Your task to perform on an android device: open app "Calculator" (install if not already installed) Image 0: 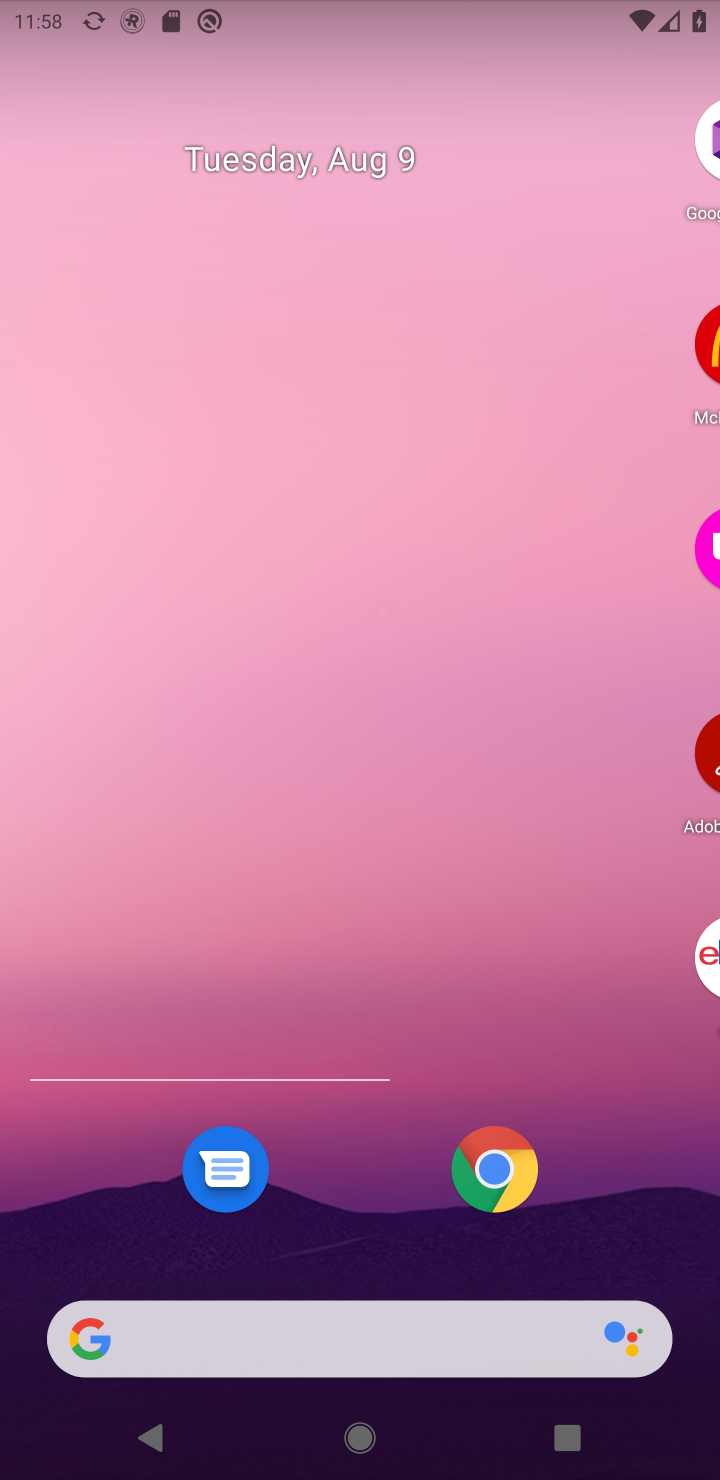
Step 0: press home button
Your task to perform on an android device: open app "Calculator" (install if not already installed) Image 1: 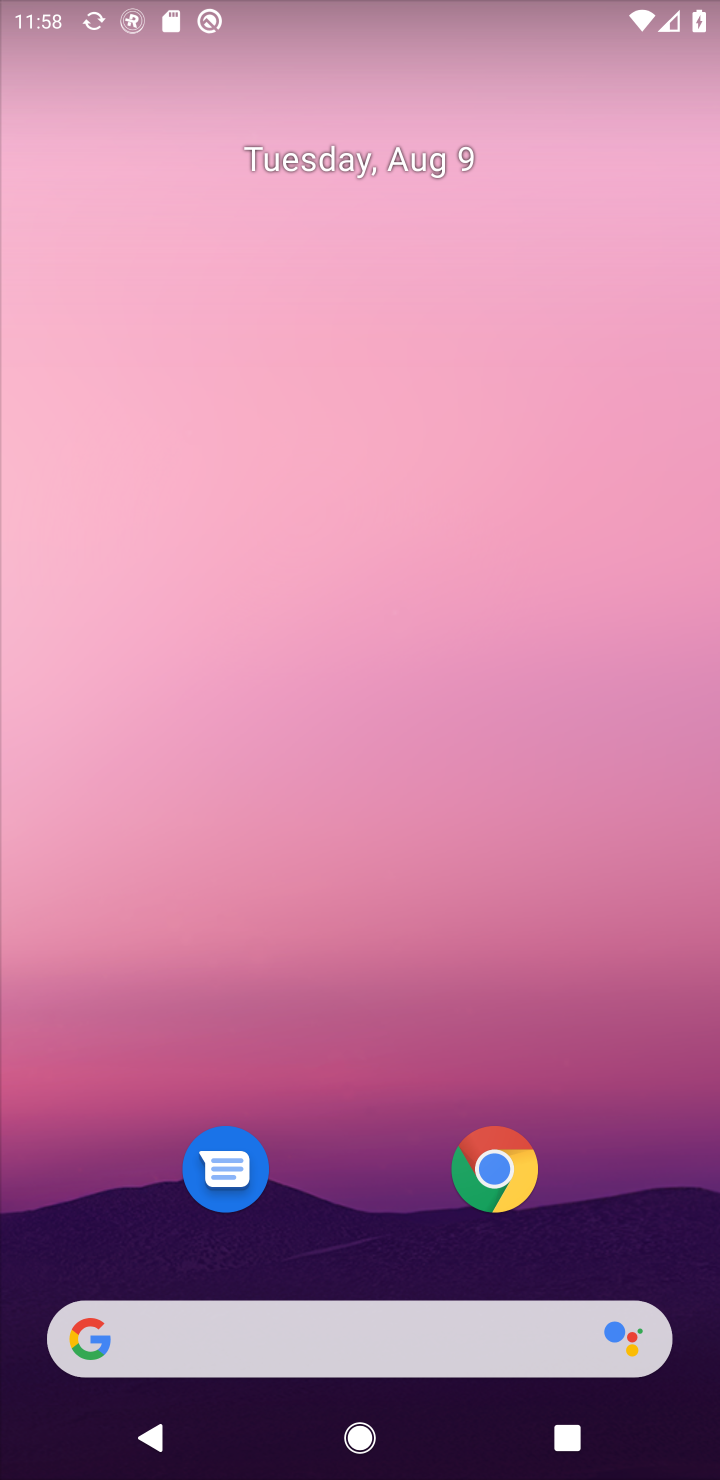
Step 1: drag from (632, 1224) to (636, 80)
Your task to perform on an android device: open app "Calculator" (install if not already installed) Image 2: 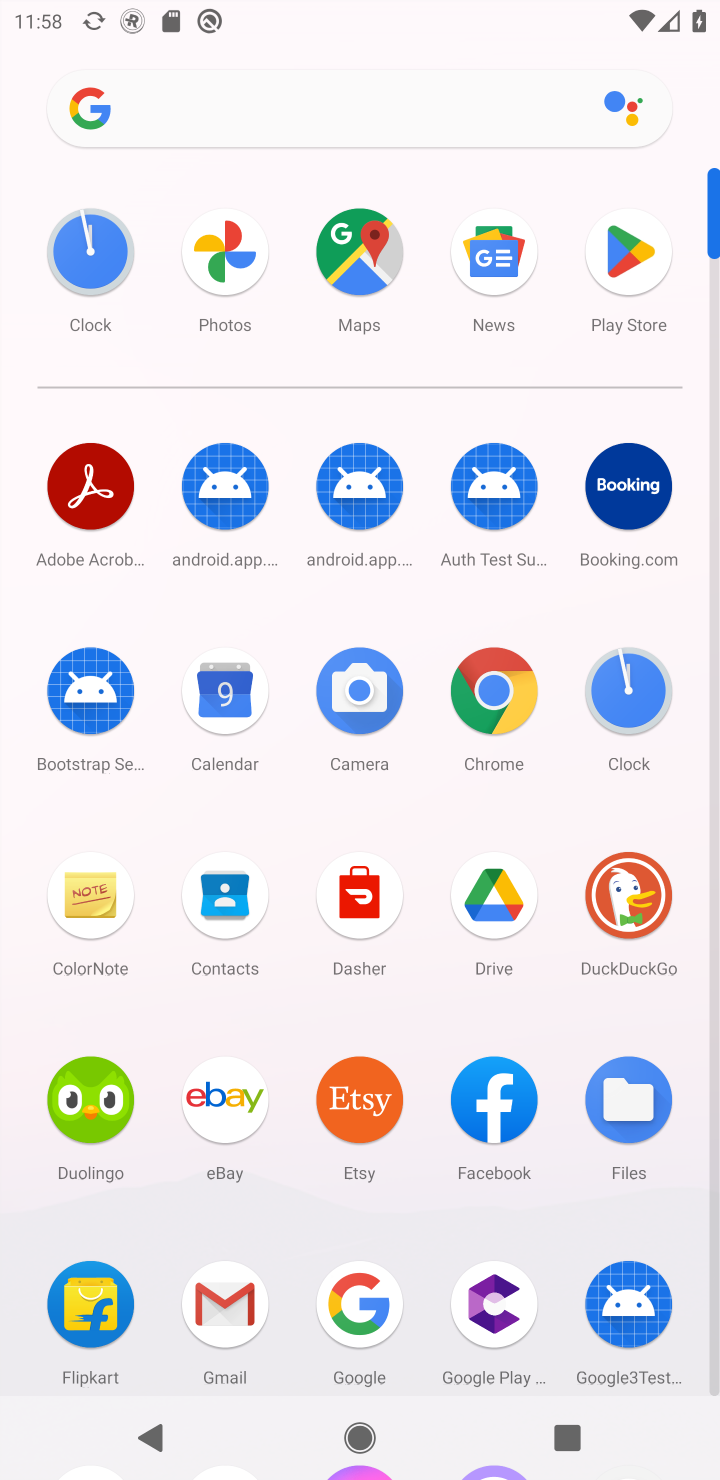
Step 2: click (620, 246)
Your task to perform on an android device: open app "Calculator" (install if not already installed) Image 3: 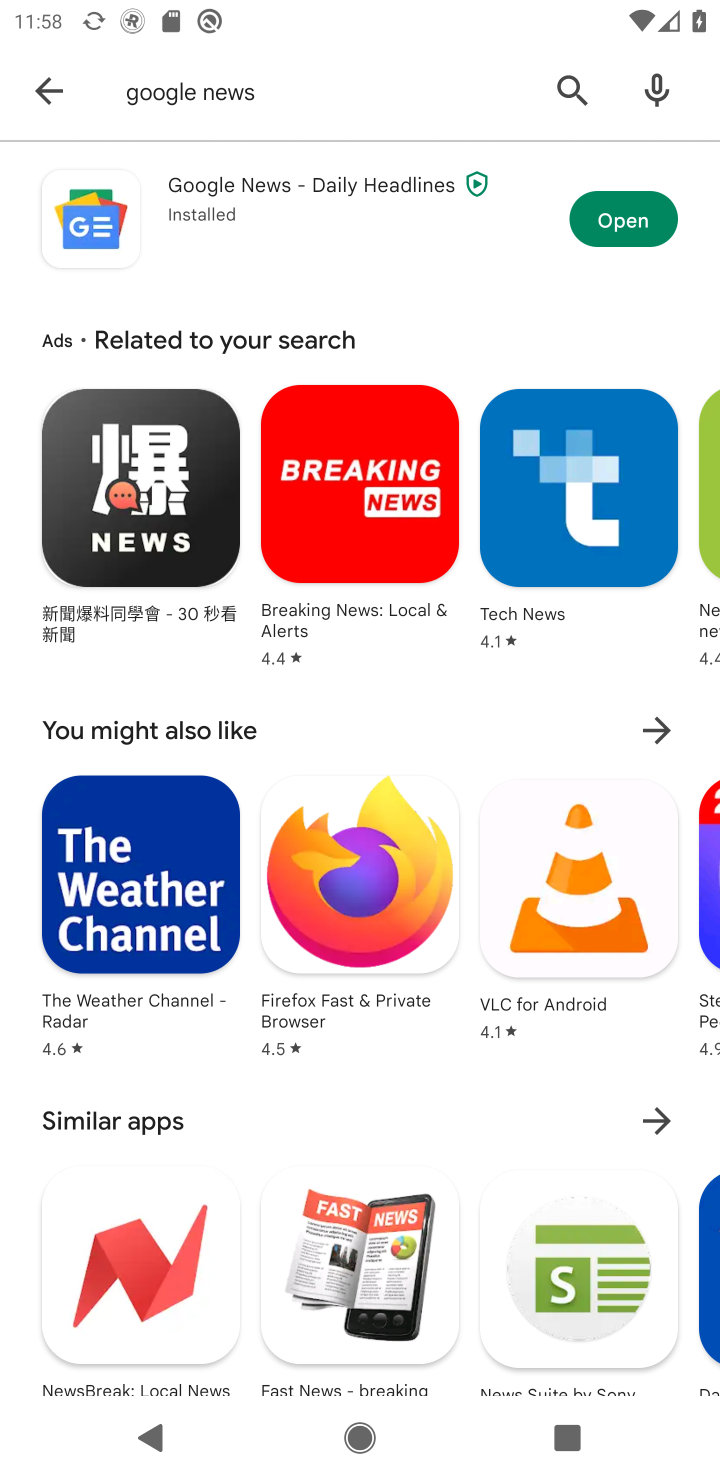
Step 3: click (569, 82)
Your task to perform on an android device: open app "Calculator" (install if not already installed) Image 4: 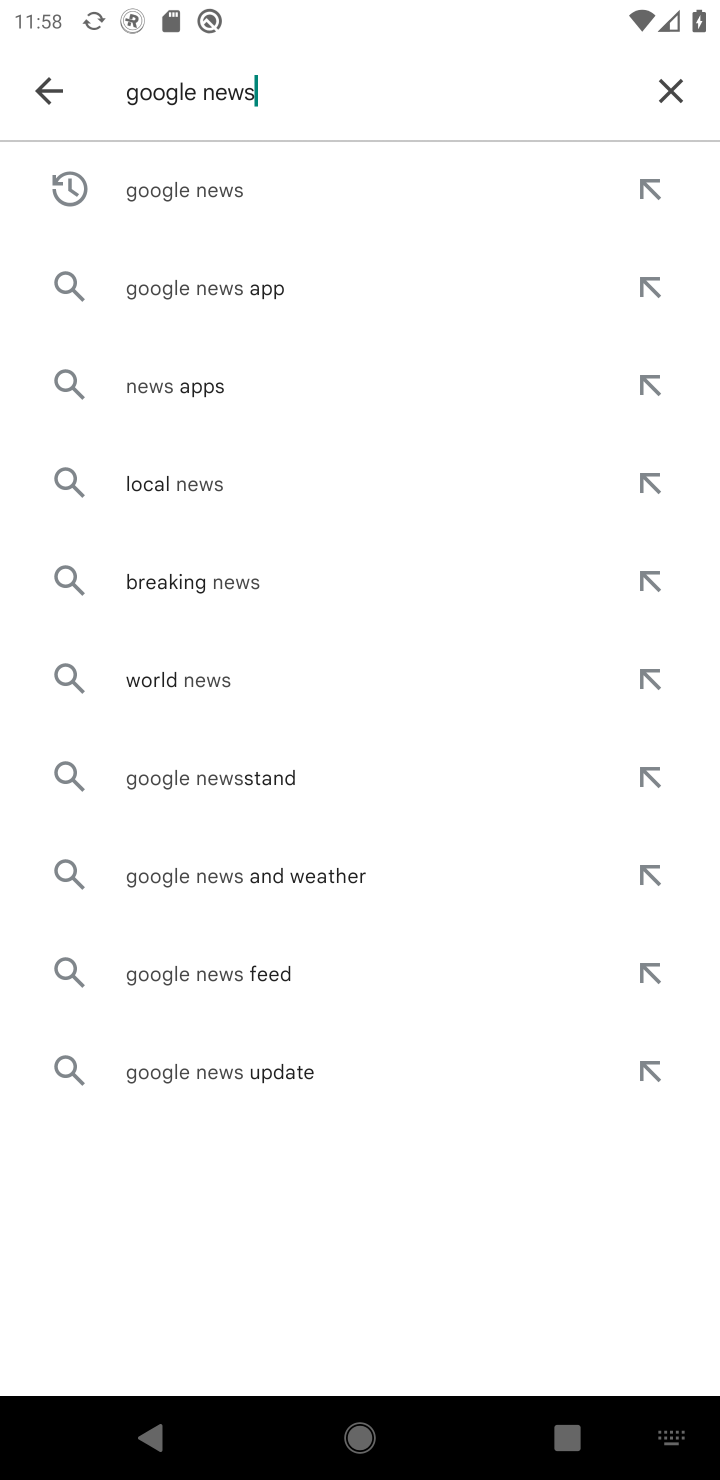
Step 4: click (667, 86)
Your task to perform on an android device: open app "Calculator" (install if not already installed) Image 5: 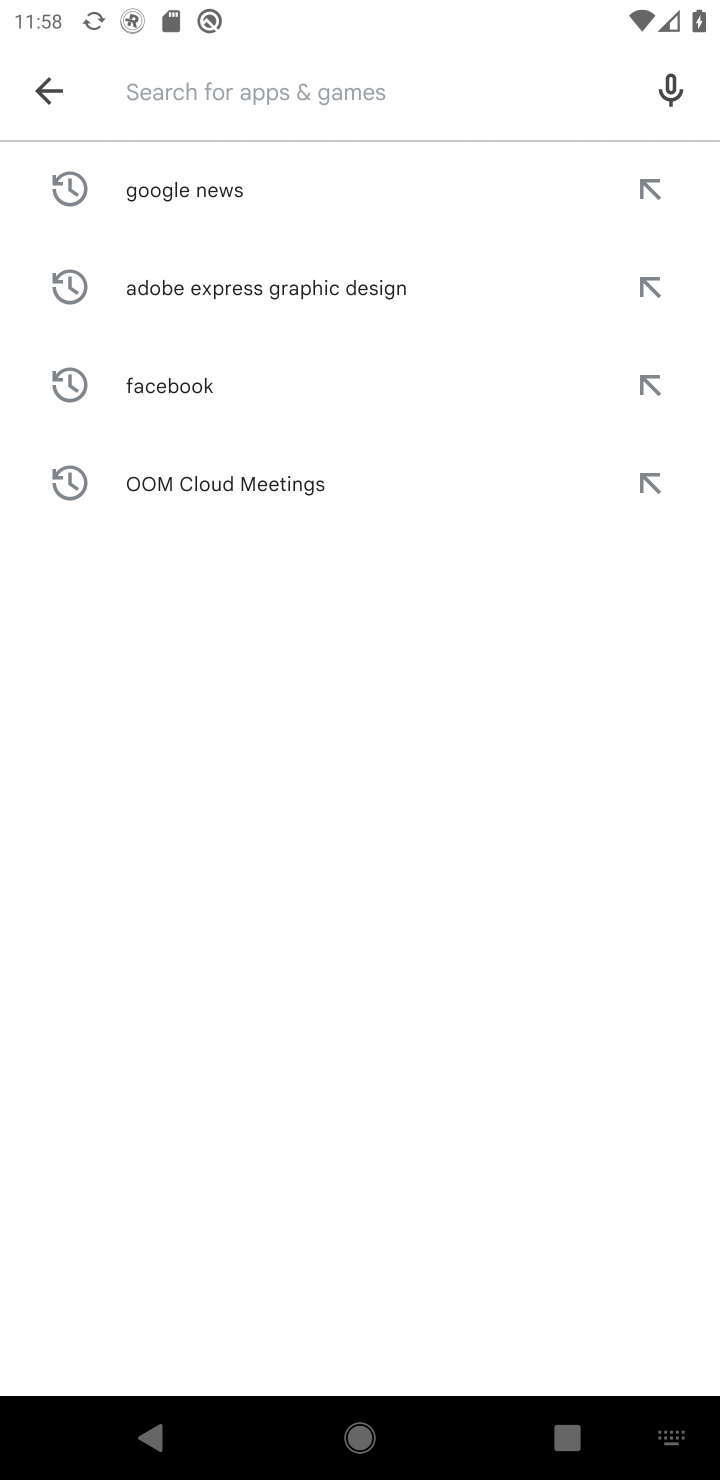
Step 5: press enter
Your task to perform on an android device: open app "Calculator" (install if not already installed) Image 6: 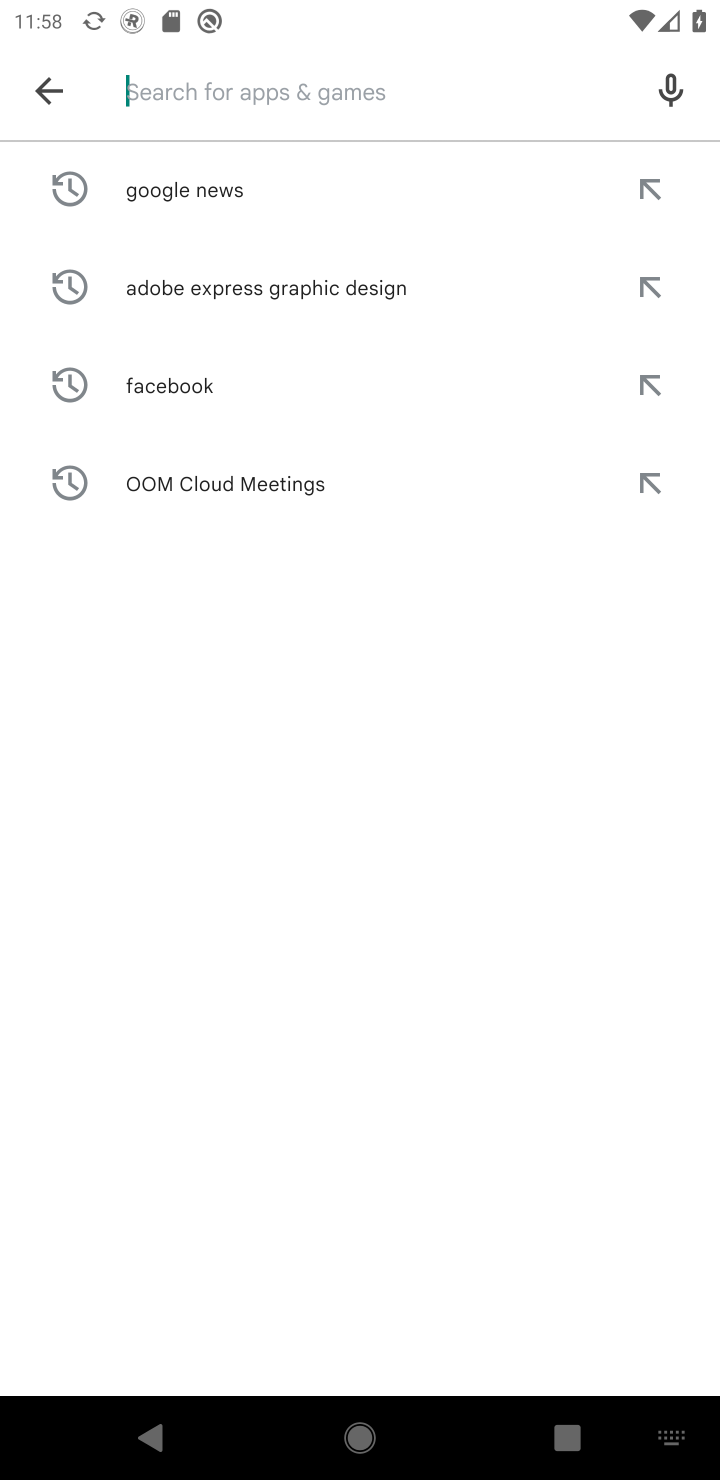
Step 6: type "calculator"
Your task to perform on an android device: open app "Calculator" (install if not already installed) Image 7: 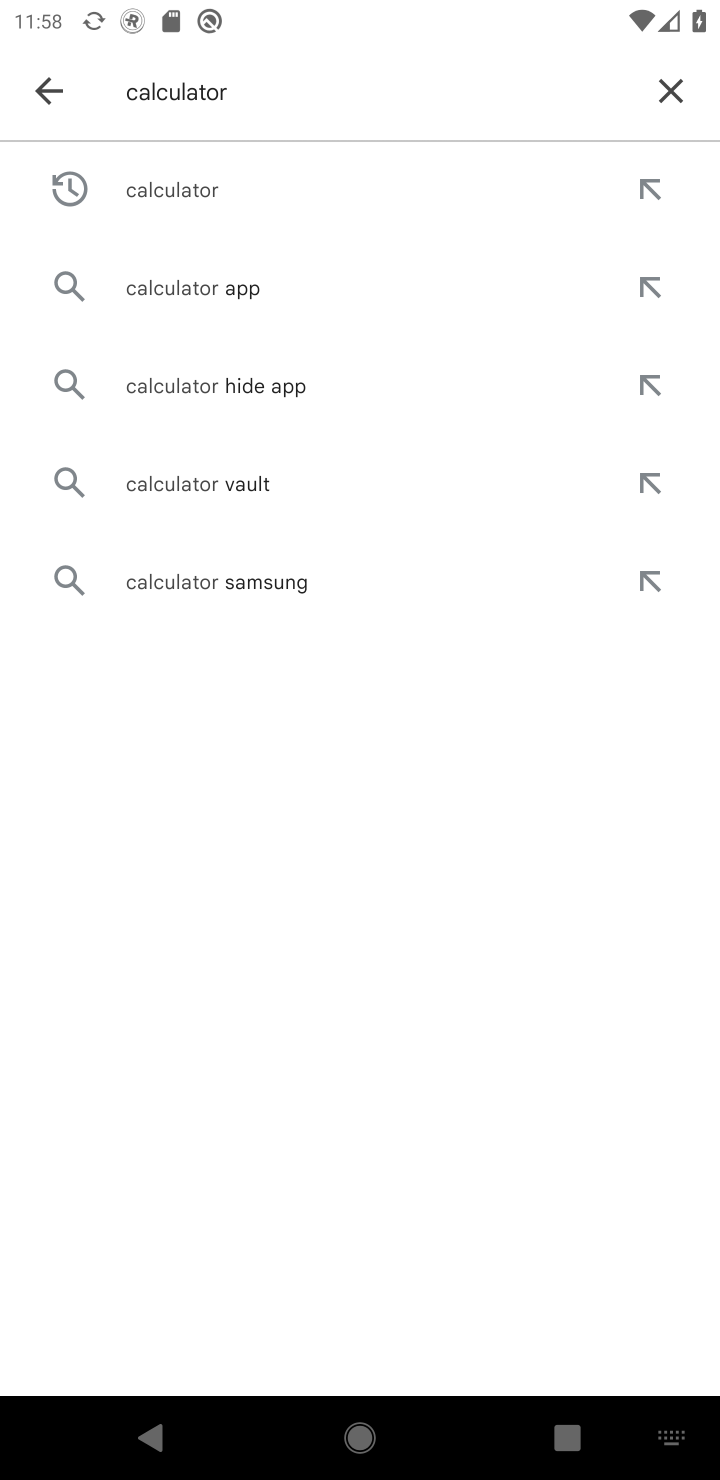
Step 7: click (263, 172)
Your task to perform on an android device: open app "Calculator" (install if not already installed) Image 8: 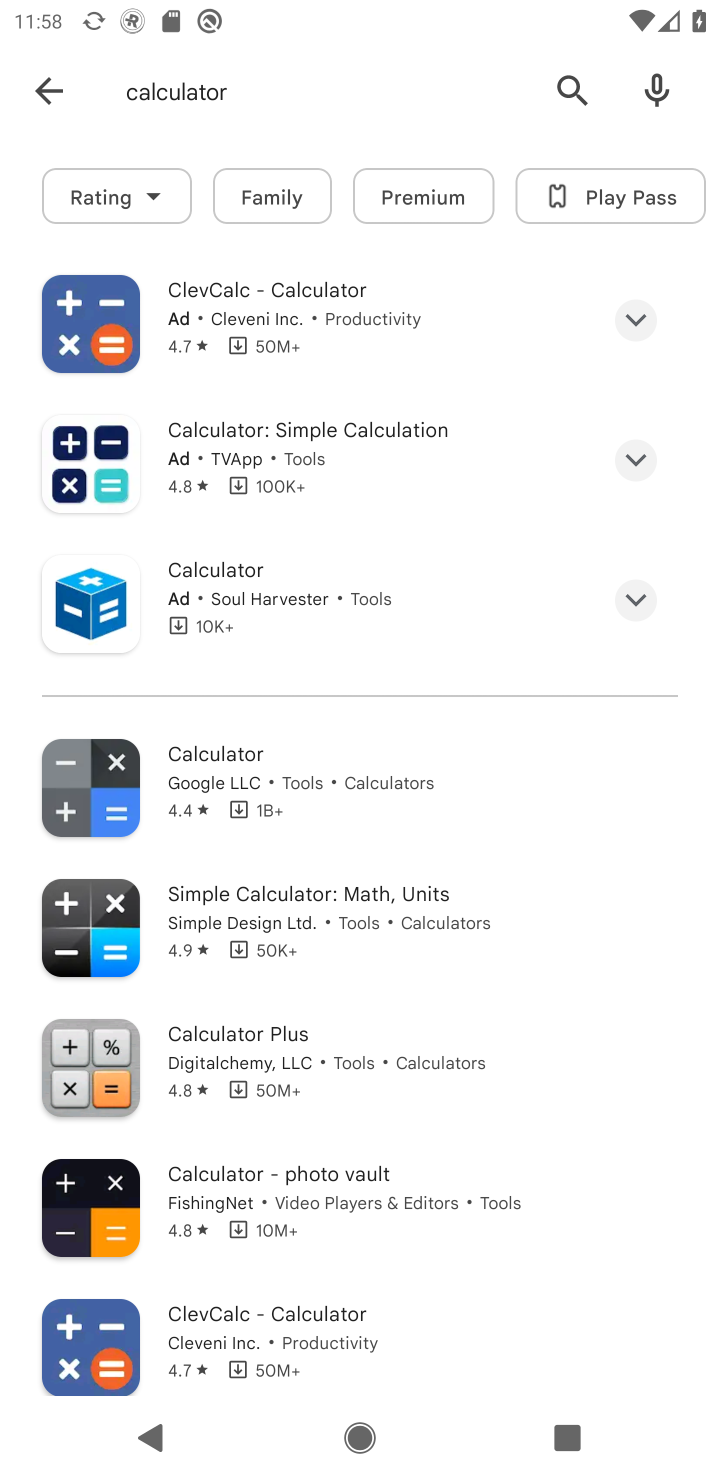
Step 8: task complete